Your task to perform on an android device: toggle notifications settings in the gmail app Image 0: 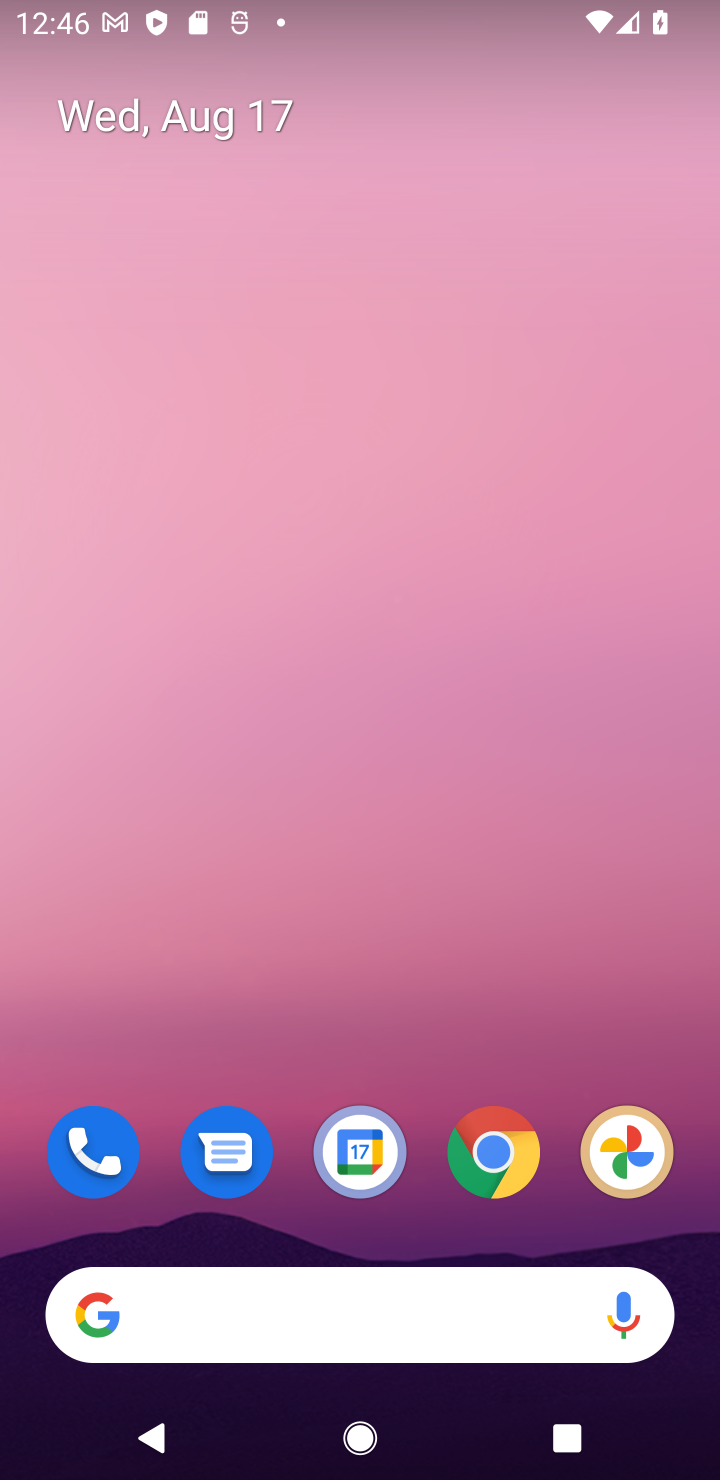
Step 0: drag from (548, 1226) to (303, 26)
Your task to perform on an android device: toggle notifications settings in the gmail app Image 1: 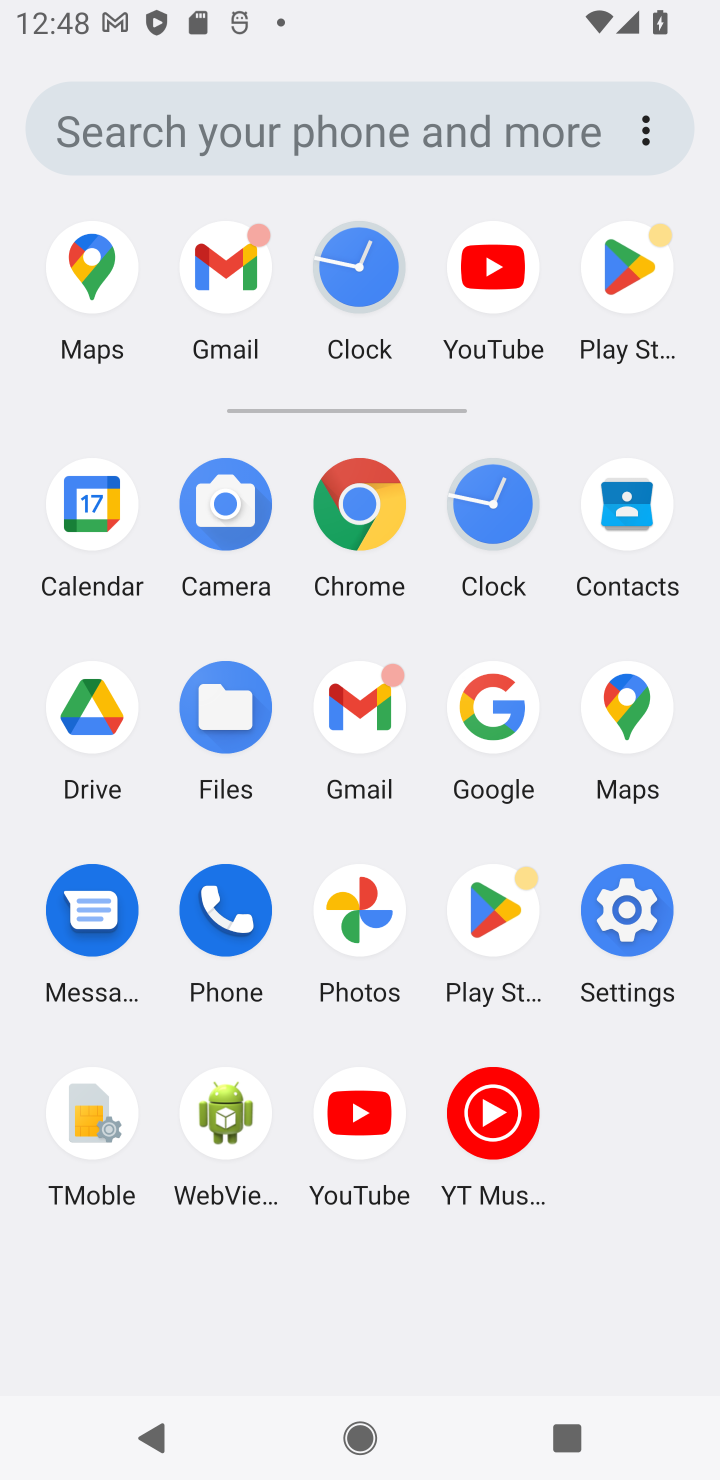
Step 1: click (339, 721)
Your task to perform on an android device: toggle notifications settings in the gmail app Image 2: 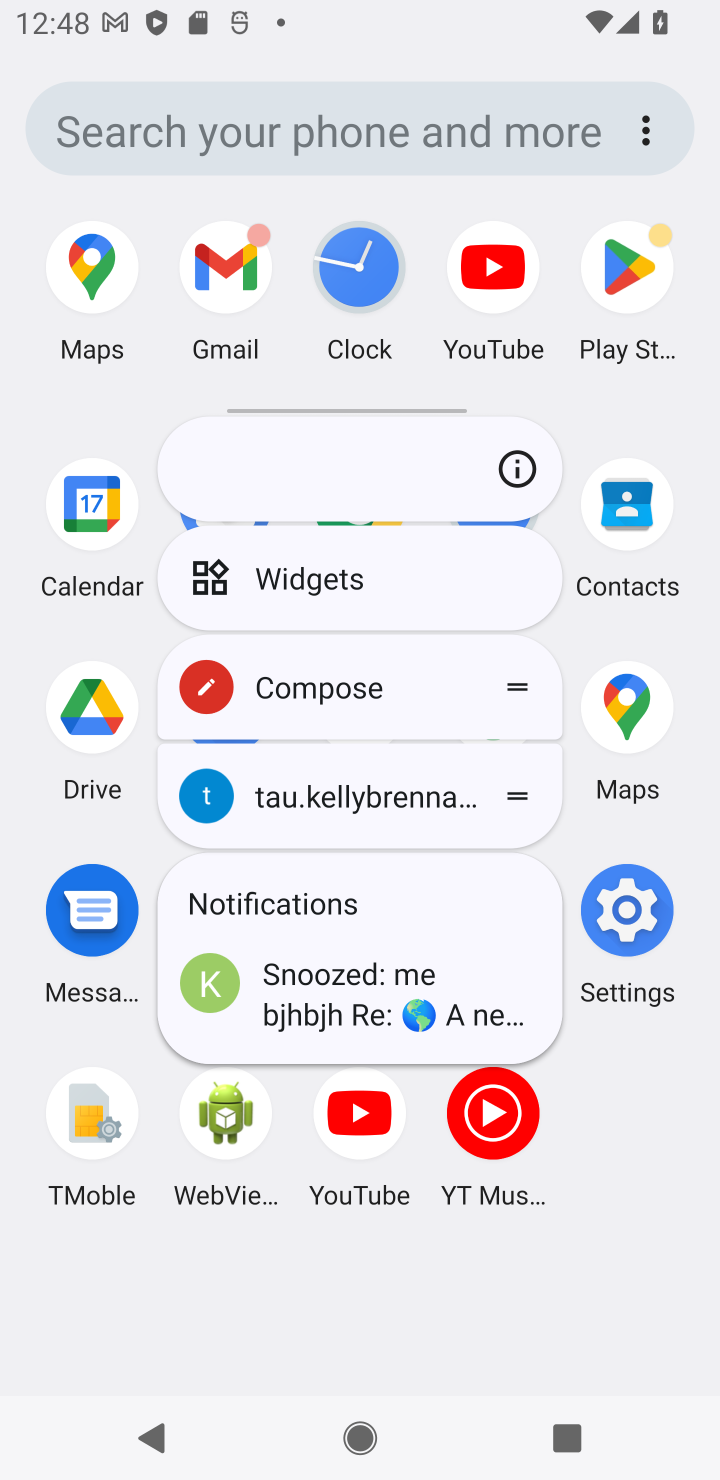
Step 2: click (632, 1101)
Your task to perform on an android device: toggle notifications settings in the gmail app Image 3: 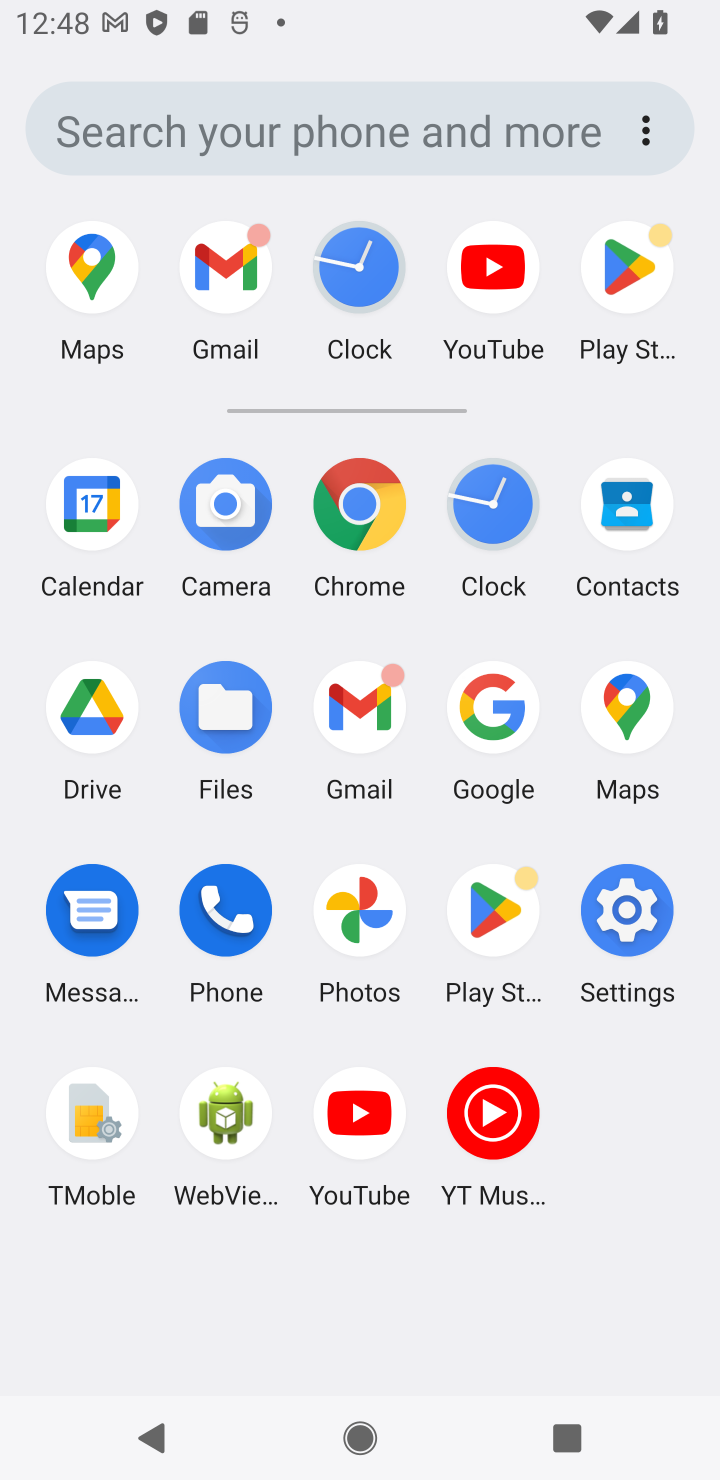
Step 3: click (339, 720)
Your task to perform on an android device: toggle notifications settings in the gmail app Image 4: 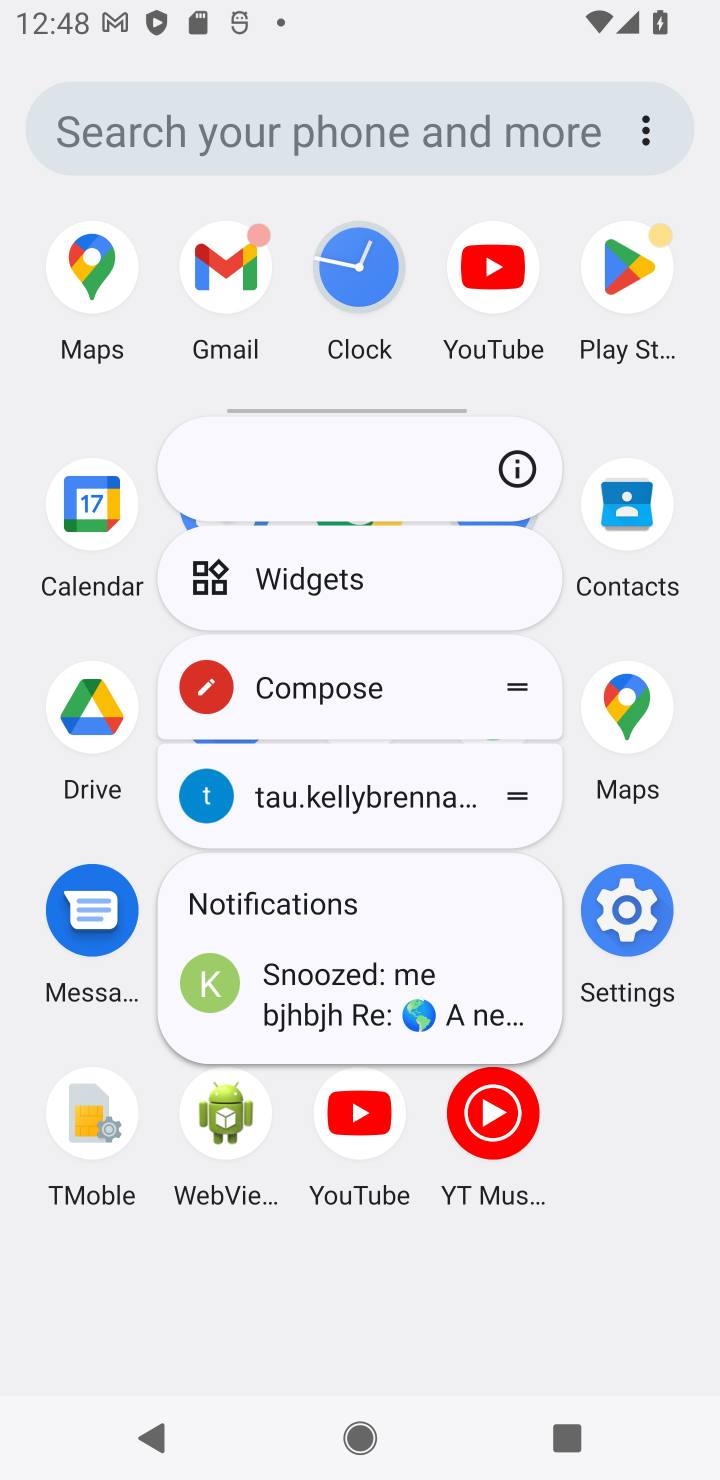
Step 4: task complete